Your task to perform on an android device: View the shopping cart on amazon.com. Add "beats solo 3" to the cart on amazon.com Image 0: 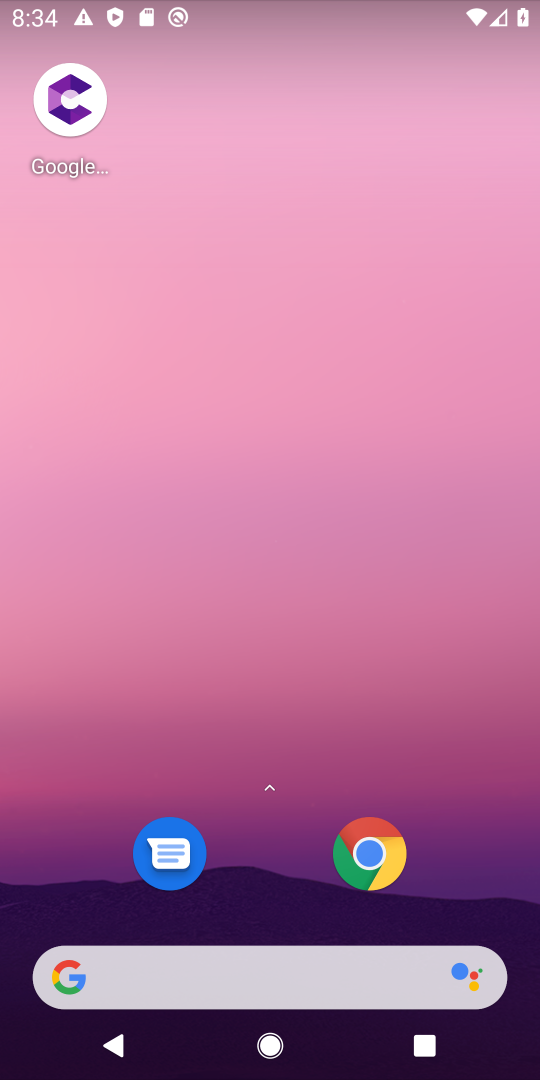
Step 0: click (241, 986)
Your task to perform on an android device: View the shopping cart on amazon.com. Add "beats solo 3" to the cart on amazon.com Image 1: 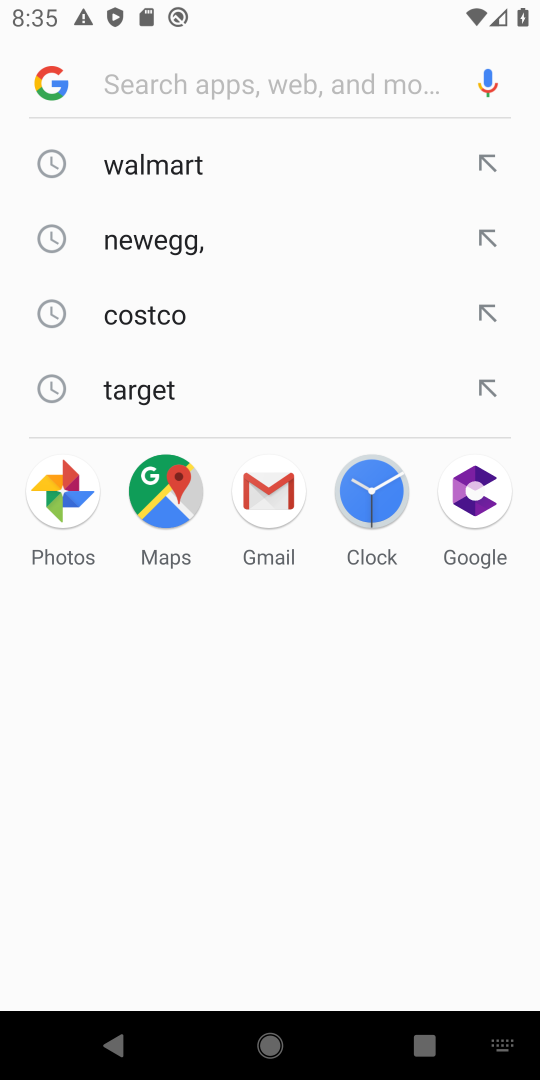
Step 1: click (204, 175)
Your task to perform on an android device: View the shopping cart on amazon.com. Add "beats solo 3" to the cart on amazon.com Image 2: 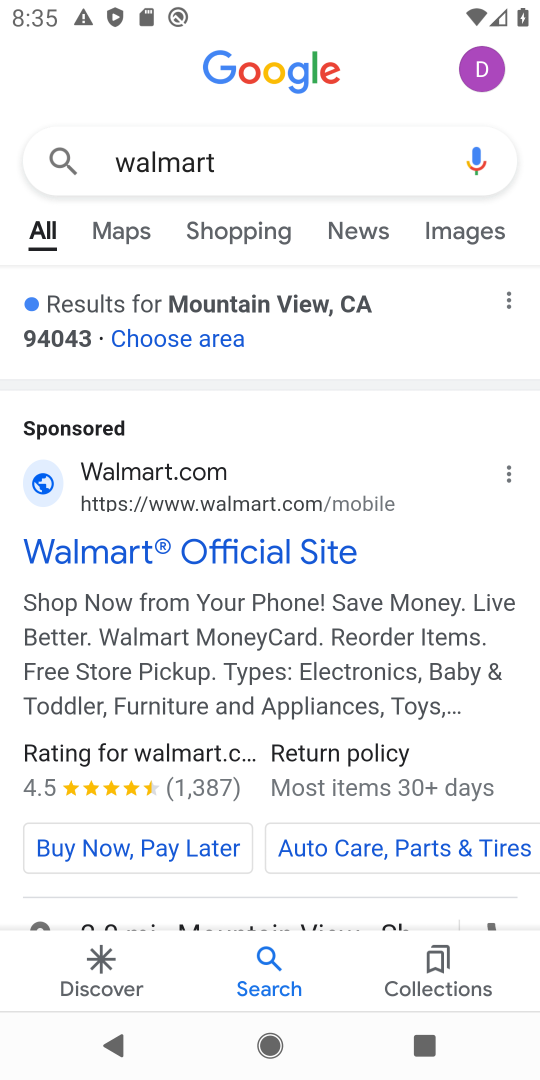
Step 2: click (189, 539)
Your task to perform on an android device: View the shopping cart on amazon.com. Add "beats solo 3" to the cart on amazon.com Image 3: 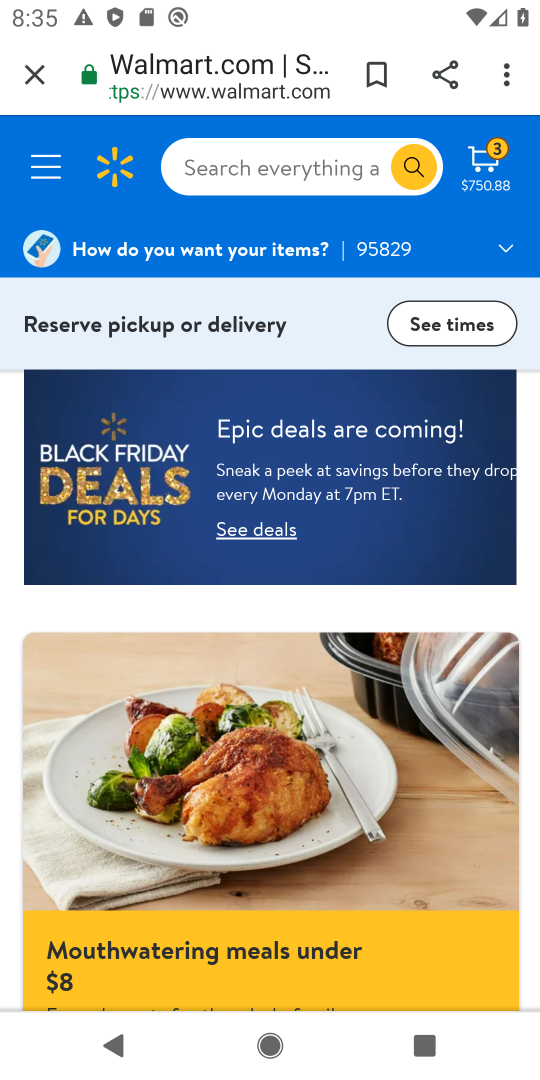
Step 3: task complete